Your task to perform on an android device: Open the calendar and show me this week's events? Image 0: 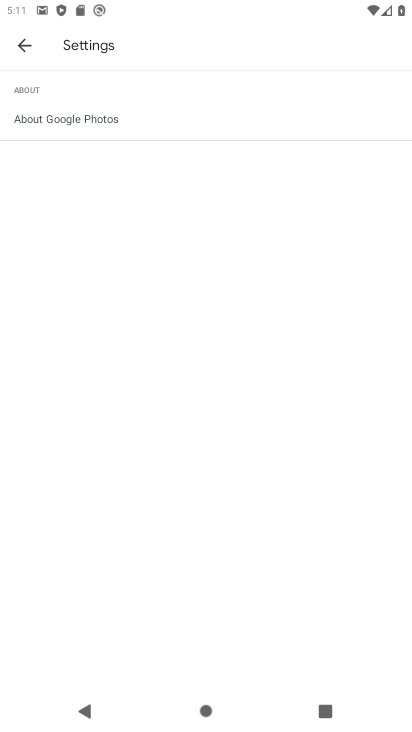
Step 0: press home button
Your task to perform on an android device: Open the calendar and show me this week's events? Image 1: 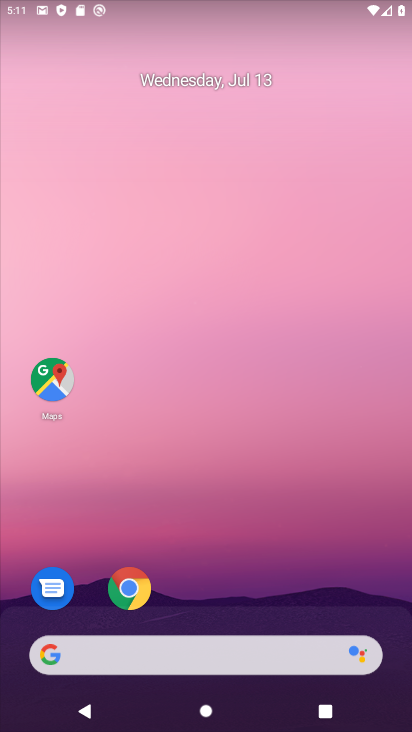
Step 1: drag from (236, 195) to (236, 103)
Your task to perform on an android device: Open the calendar and show me this week's events? Image 2: 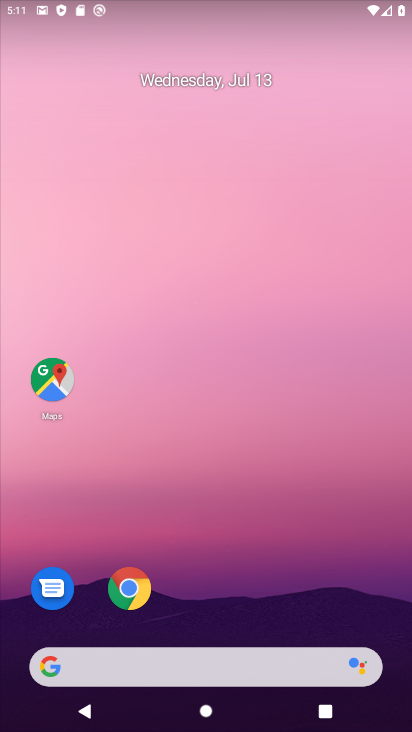
Step 2: drag from (235, 609) to (157, 6)
Your task to perform on an android device: Open the calendar and show me this week's events? Image 3: 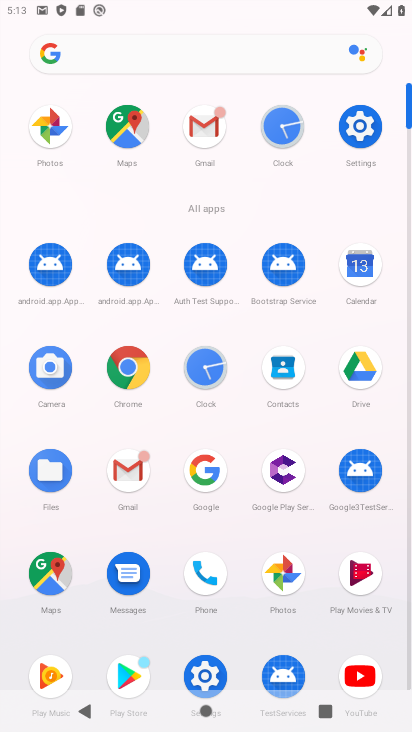
Step 3: click (355, 268)
Your task to perform on an android device: Open the calendar and show me this week's events? Image 4: 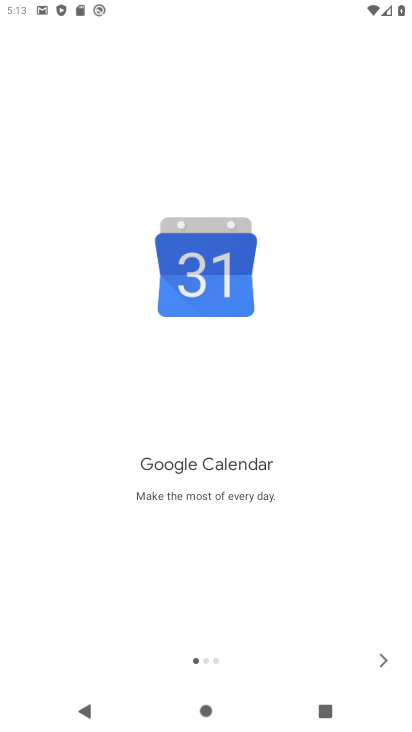
Step 4: click (379, 662)
Your task to perform on an android device: Open the calendar and show me this week's events? Image 5: 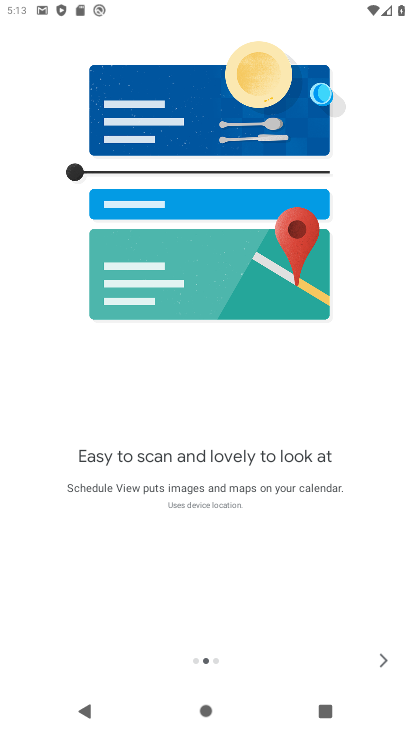
Step 5: click (379, 662)
Your task to perform on an android device: Open the calendar and show me this week's events? Image 6: 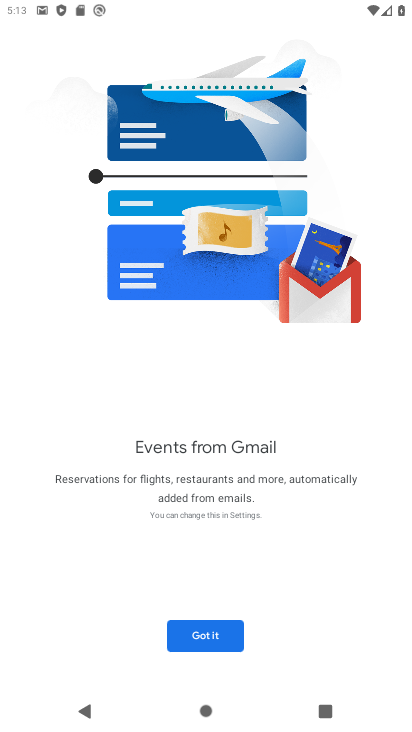
Step 6: click (216, 636)
Your task to perform on an android device: Open the calendar and show me this week's events? Image 7: 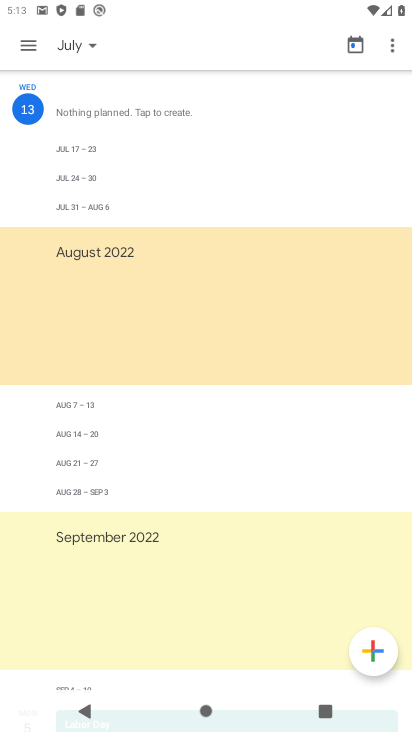
Step 7: click (76, 39)
Your task to perform on an android device: Open the calendar and show me this week's events? Image 8: 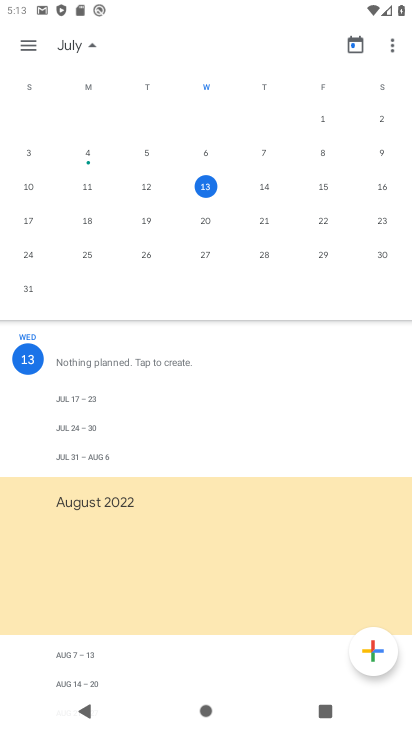
Step 8: click (31, 190)
Your task to perform on an android device: Open the calendar and show me this week's events? Image 9: 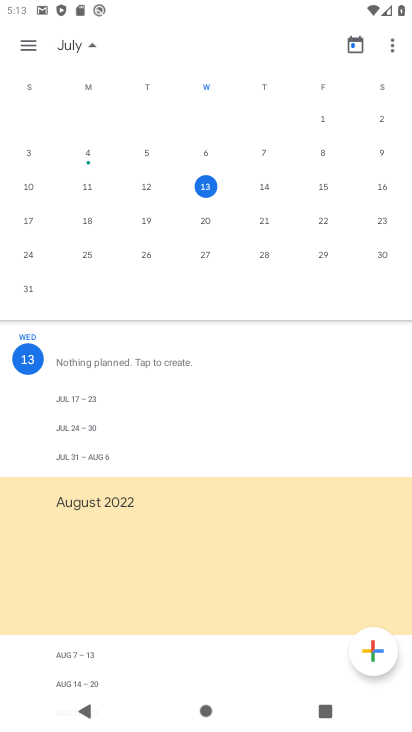
Step 9: click (31, 190)
Your task to perform on an android device: Open the calendar and show me this week's events? Image 10: 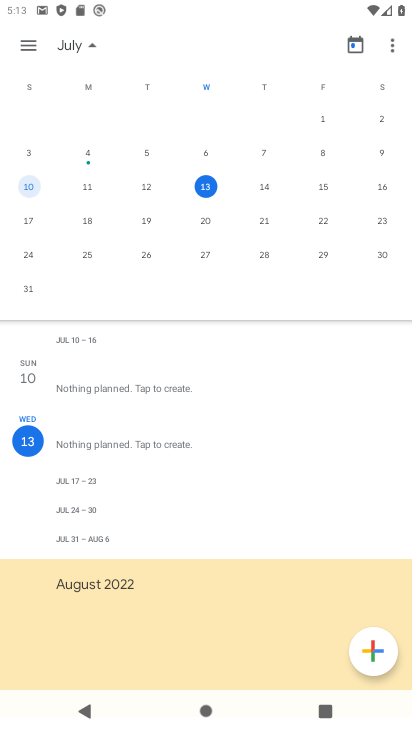
Step 10: task complete